Your task to perform on an android device: open the mobile data screen to see how much data has been used Image 0: 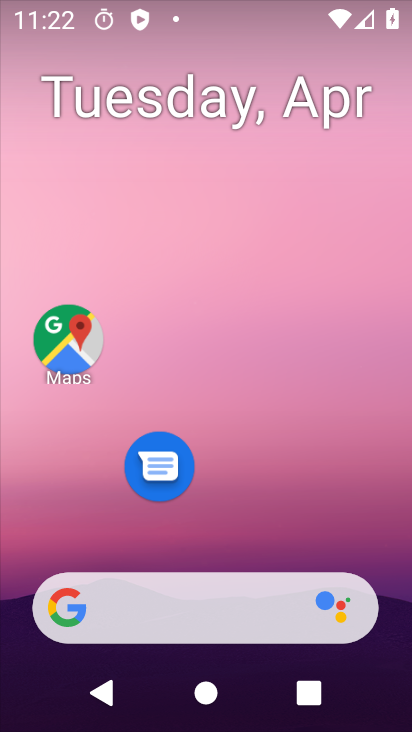
Step 0: drag from (297, 509) to (313, 199)
Your task to perform on an android device: open the mobile data screen to see how much data has been used Image 1: 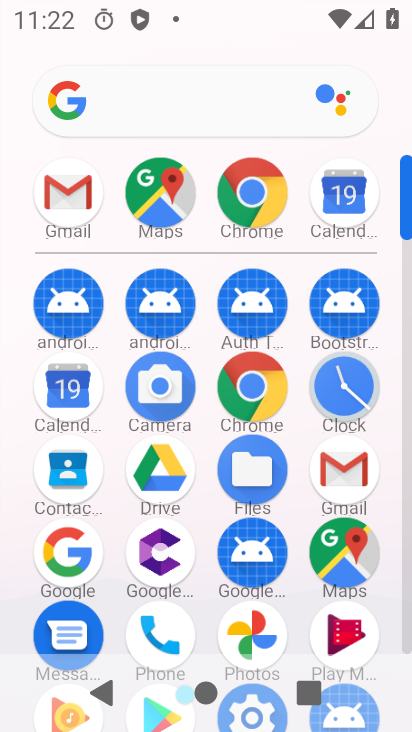
Step 1: drag from (405, 215) to (404, 441)
Your task to perform on an android device: open the mobile data screen to see how much data has been used Image 2: 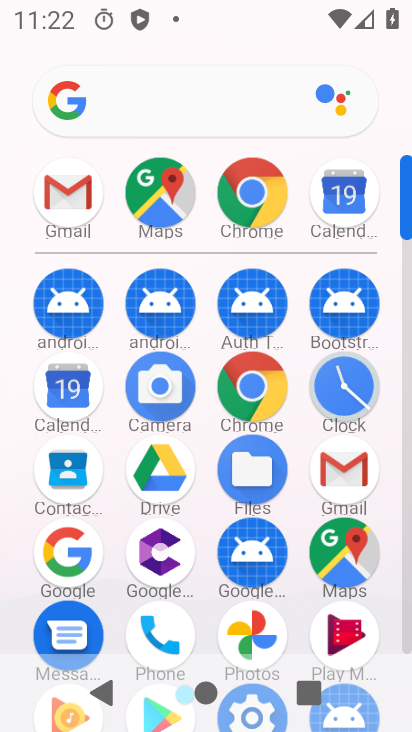
Step 2: click (404, 441)
Your task to perform on an android device: open the mobile data screen to see how much data has been used Image 3: 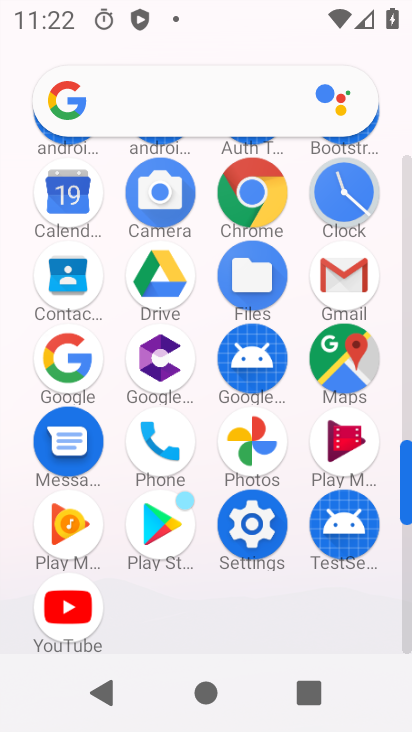
Step 3: click (263, 525)
Your task to perform on an android device: open the mobile data screen to see how much data has been used Image 4: 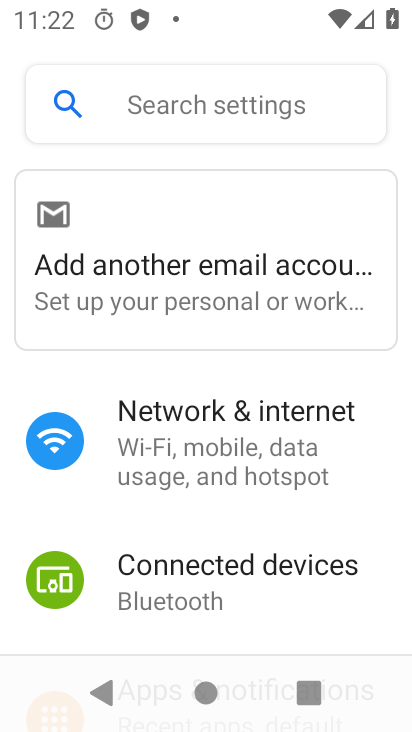
Step 4: click (249, 485)
Your task to perform on an android device: open the mobile data screen to see how much data has been used Image 5: 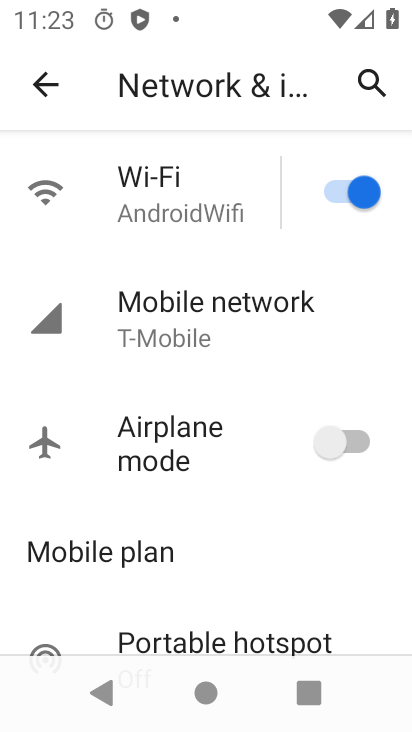
Step 5: click (205, 343)
Your task to perform on an android device: open the mobile data screen to see how much data has been used Image 6: 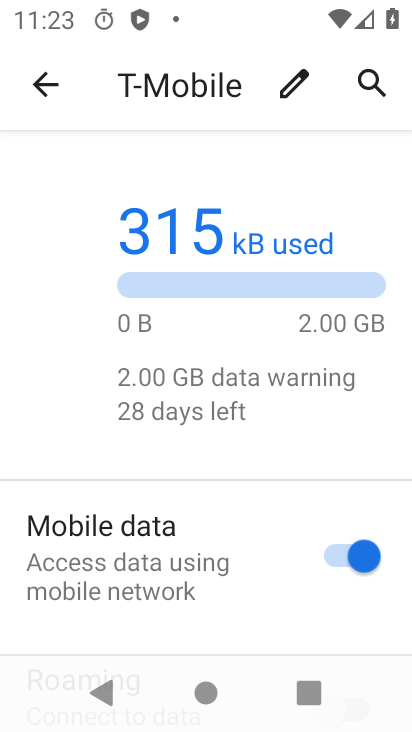
Step 6: task complete